Your task to perform on an android device: Open maps Image 0: 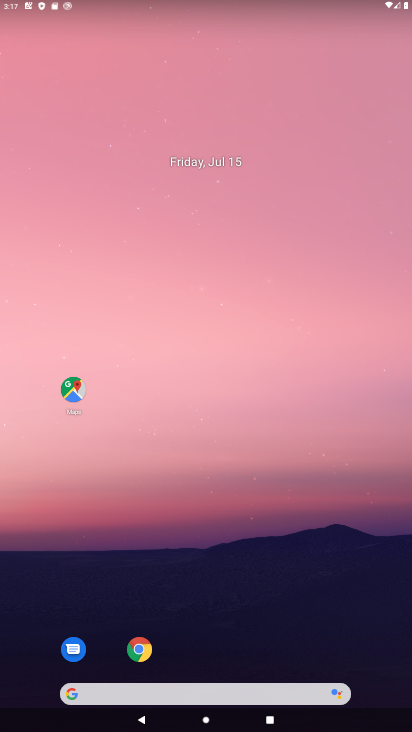
Step 0: click (73, 389)
Your task to perform on an android device: Open maps Image 1: 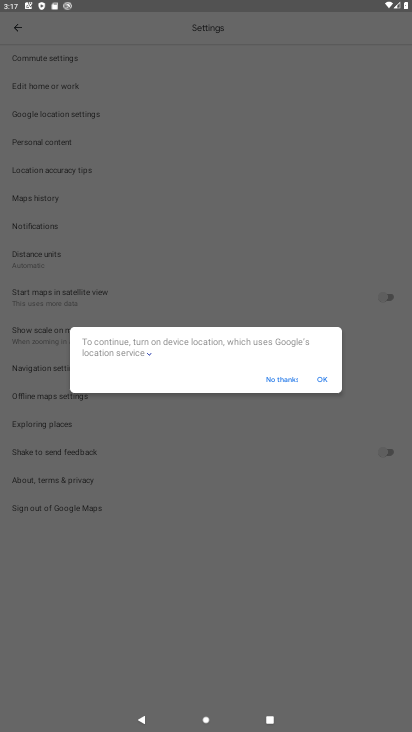
Step 1: press home button
Your task to perform on an android device: Open maps Image 2: 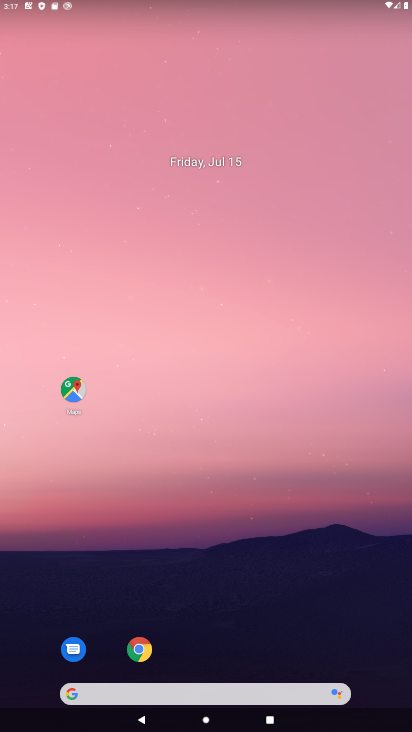
Step 2: drag from (280, 669) to (253, 185)
Your task to perform on an android device: Open maps Image 3: 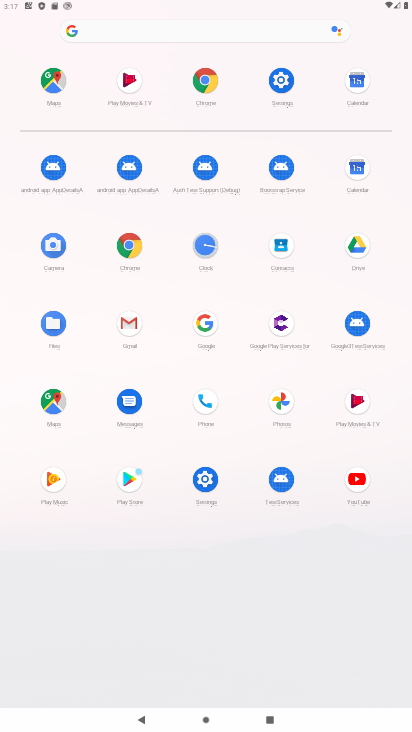
Step 3: click (47, 86)
Your task to perform on an android device: Open maps Image 4: 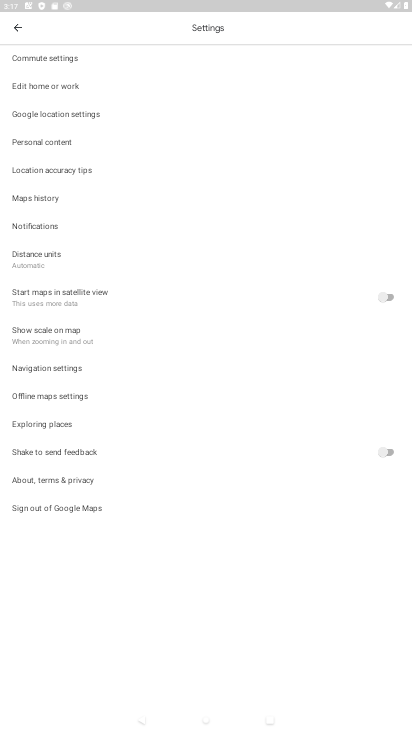
Step 4: task complete